Your task to perform on an android device: allow notifications from all sites in the chrome app Image 0: 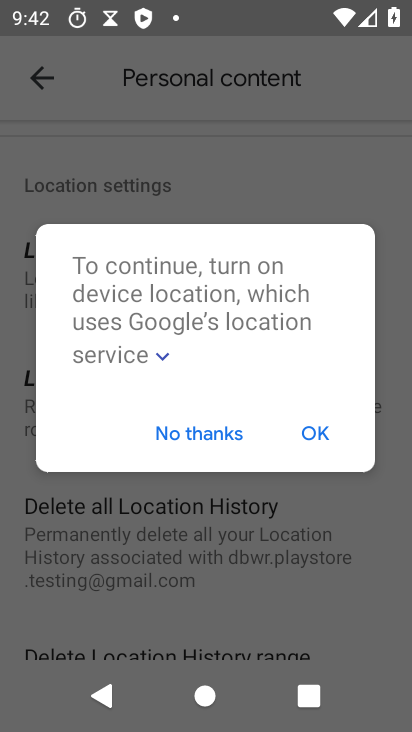
Step 0: press home button
Your task to perform on an android device: allow notifications from all sites in the chrome app Image 1: 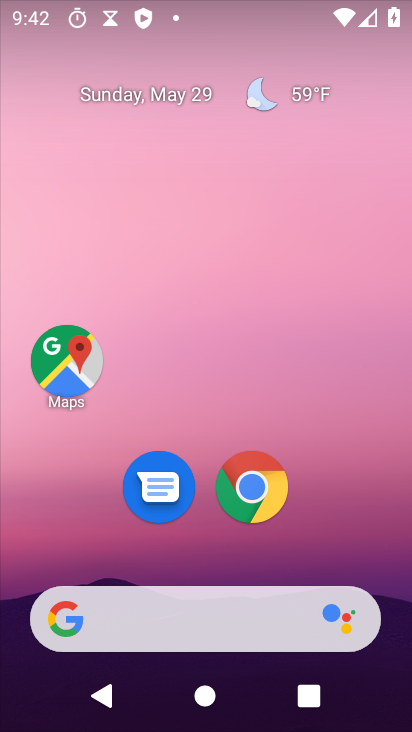
Step 1: click (249, 485)
Your task to perform on an android device: allow notifications from all sites in the chrome app Image 2: 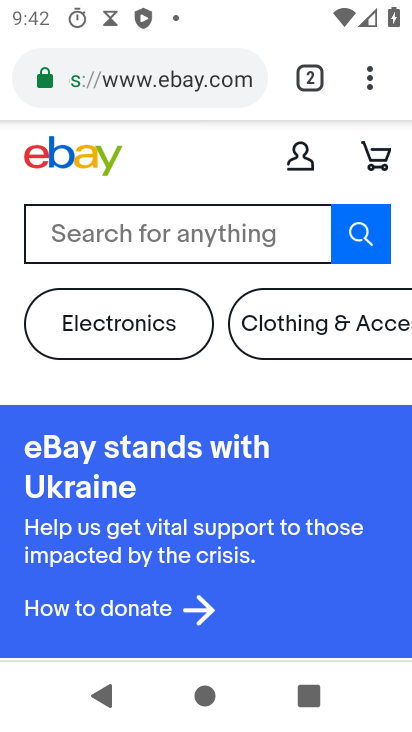
Step 2: click (373, 73)
Your task to perform on an android device: allow notifications from all sites in the chrome app Image 3: 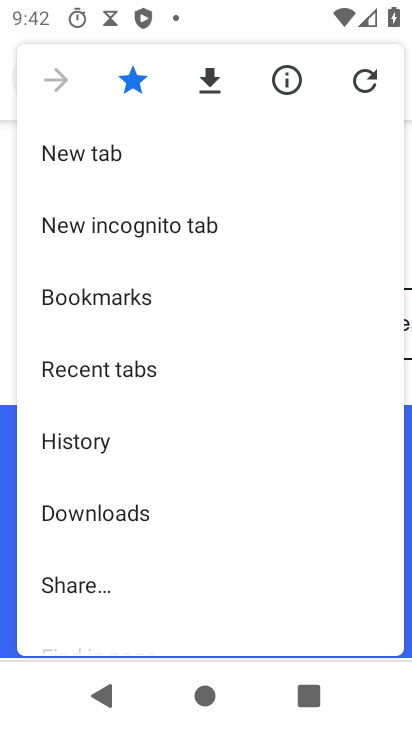
Step 3: drag from (114, 414) to (171, 312)
Your task to perform on an android device: allow notifications from all sites in the chrome app Image 4: 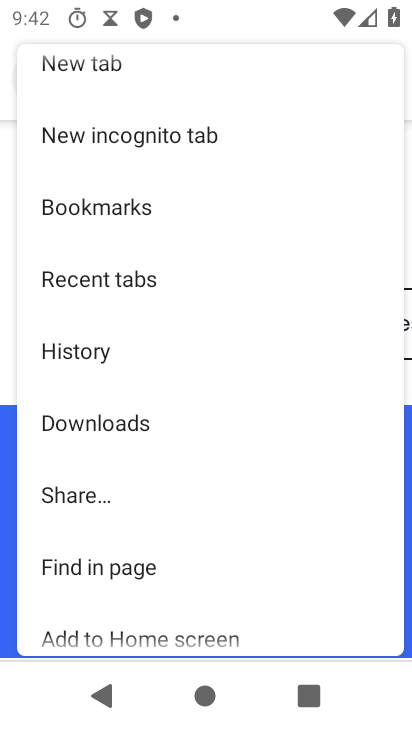
Step 4: drag from (97, 398) to (121, 305)
Your task to perform on an android device: allow notifications from all sites in the chrome app Image 5: 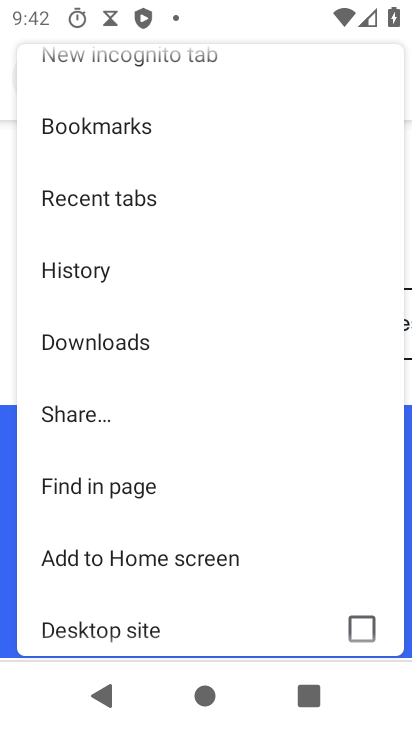
Step 5: drag from (84, 388) to (155, 294)
Your task to perform on an android device: allow notifications from all sites in the chrome app Image 6: 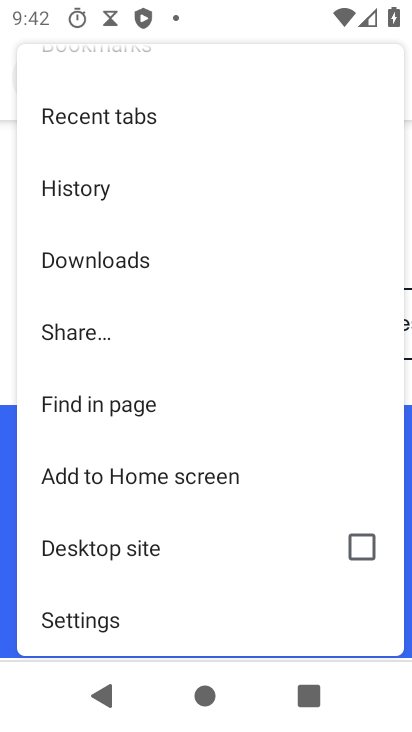
Step 6: drag from (81, 380) to (137, 303)
Your task to perform on an android device: allow notifications from all sites in the chrome app Image 7: 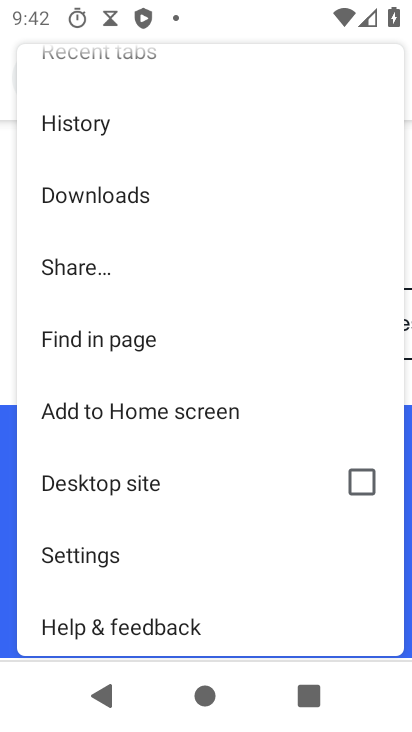
Step 7: drag from (83, 440) to (178, 336)
Your task to perform on an android device: allow notifications from all sites in the chrome app Image 8: 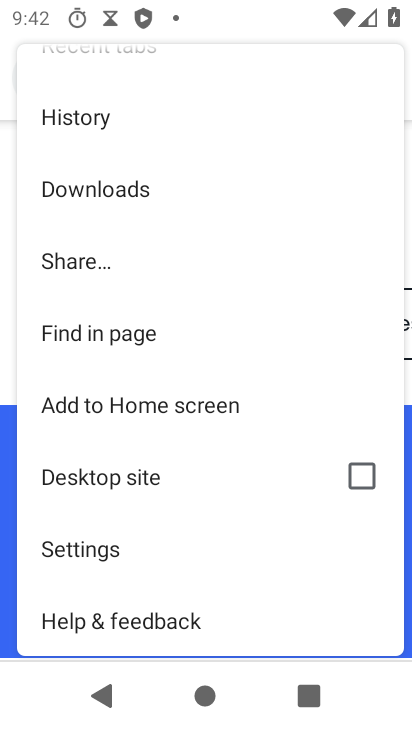
Step 8: click (87, 543)
Your task to perform on an android device: allow notifications from all sites in the chrome app Image 9: 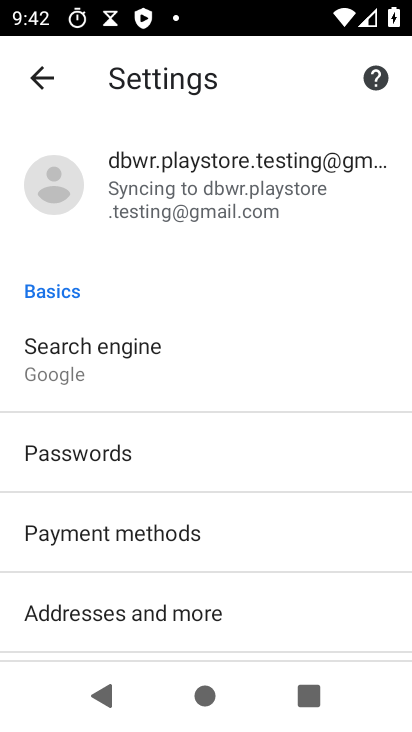
Step 9: drag from (99, 512) to (174, 405)
Your task to perform on an android device: allow notifications from all sites in the chrome app Image 10: 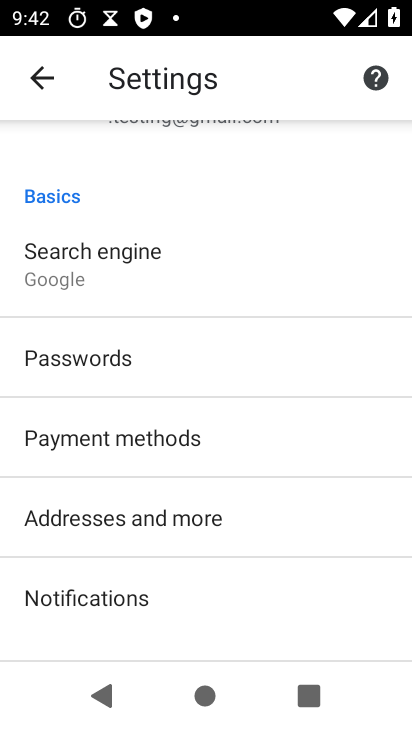
Step 10: drag from (91, 542) to (177, 417)
Your task to perform on an android device: allow notifications from all sites in the chrome app Image 11: 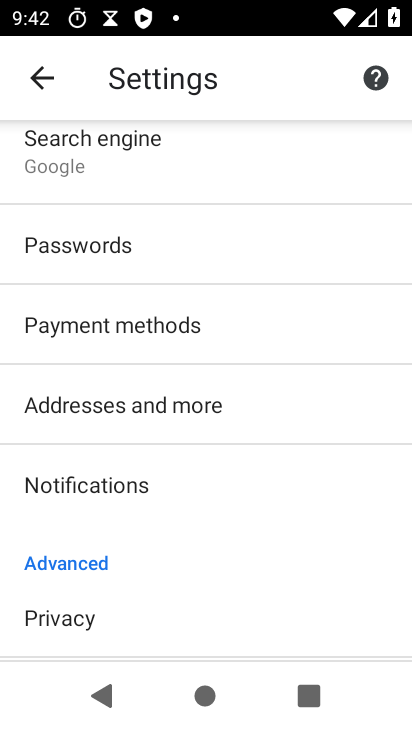
Step 11: drag from (86, 527) to (215, 381)
Your task to perform on an android device: allow notifications from all sites in the chrome app Image 12: 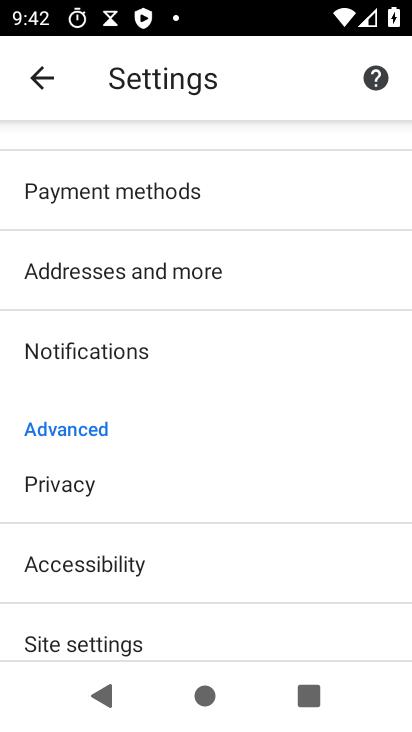
Step 12: drag from (86, 538) to (184, 444)
Your task to perform on an android device: allow notifications from all sites in the chrome app Image 13: 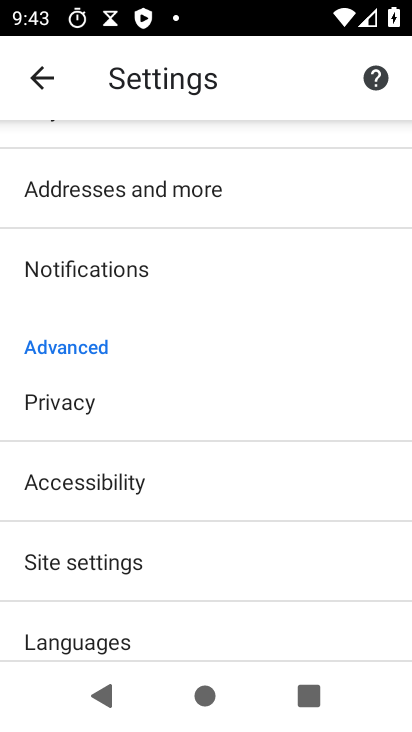
Step 13: click (105, 565)
Your task to perform on an android device: allow notifications from all sites in the chrome app Image 14: 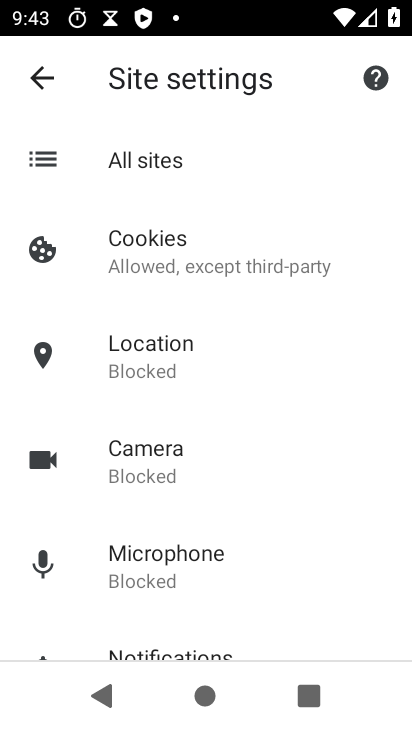
Step 14: drag from (179, 582) to (272, 405)
Your task to perform on an android device: allow notifications from all sites in the chrome app Image 15: 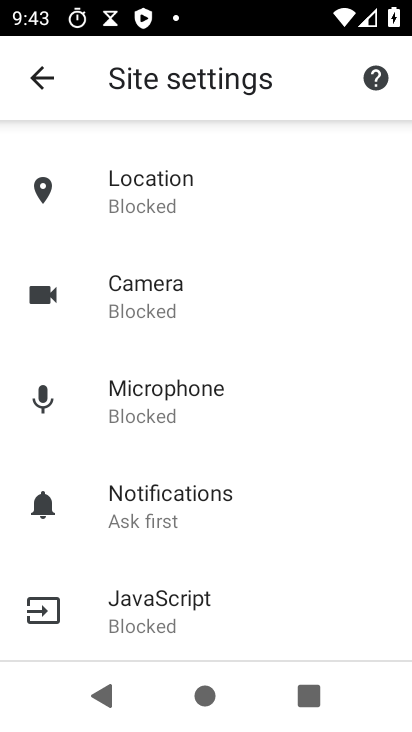
Step 15: click (220, 504)
Your task to perform on an android device: allow notifications from all sites in the chrome app Image 16: 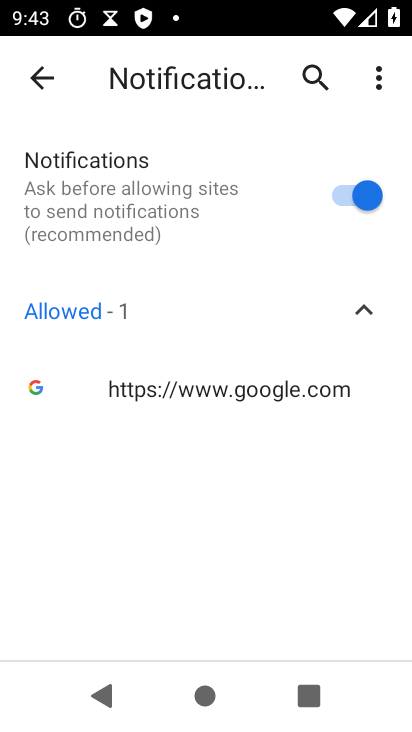
Step 16: task complete